Your task to perform on an android device: Open notification settings Image 0: 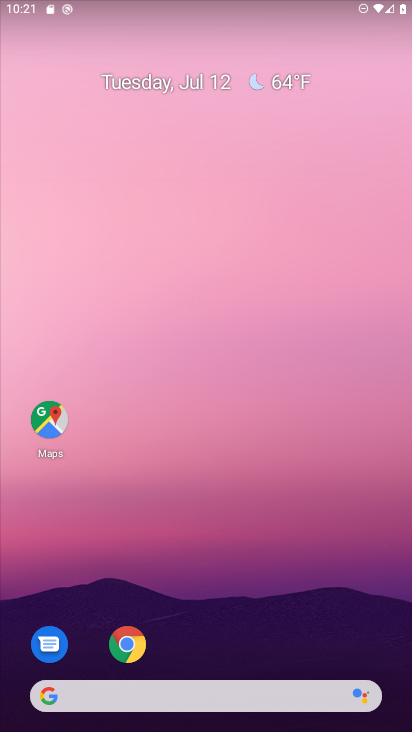
Step 0: drag from (217, 662) to (246, 86)
Your task to perform on an android device: Open notification settings Image 1: 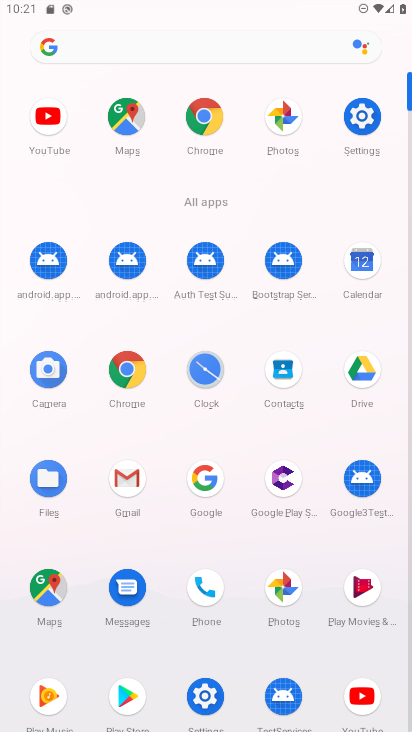
Step 1: click (378, 120)
Your task to perform on an android device: Open notification settings Image 2: 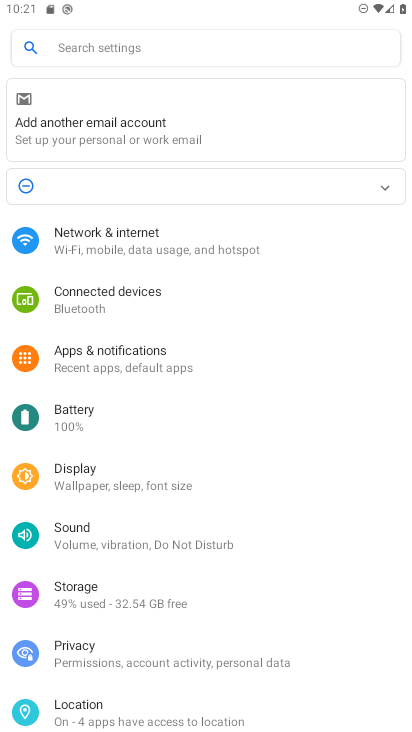
Step 2: click (150, 348)
Your task to perform on an android device: Open notification settings Image 3: 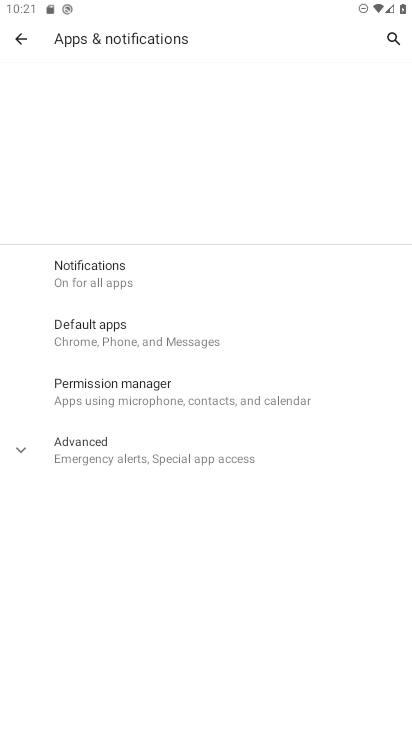
Step 3: task complete